Your task to perform on an android device: Show me productivity apps on the Play Store Image 0: 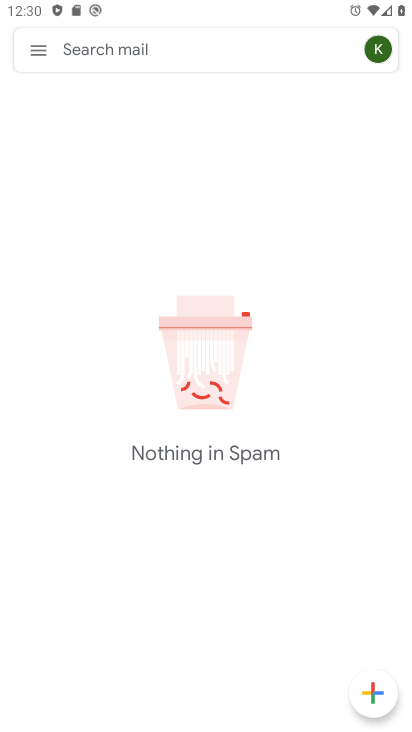
Step 0: press home button
Your task to perform on an android device: Show me productivity apps on the Play Store Image 1: 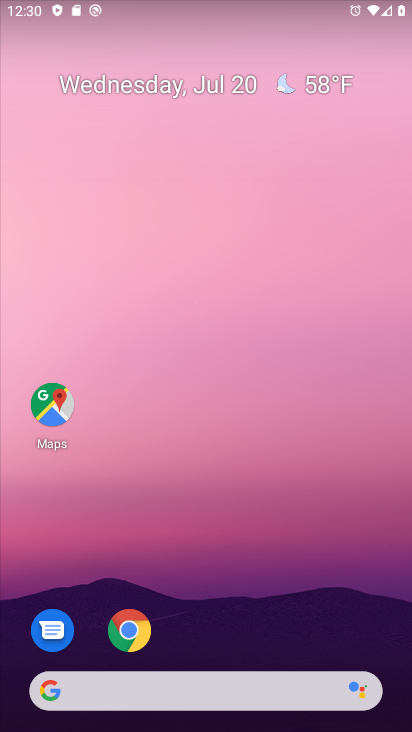
Step 1: drag from (176, 683) to (297, 25)
Your task to perform on an android device: Show me productivity apps on the Play Store Image 2: 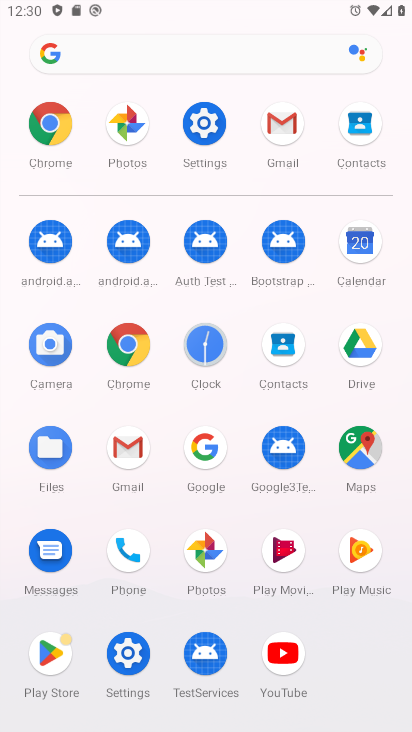
Step 2: click (53, 656)
Your task to perform on an android device: Show me productivity apps on the Play Store Image 3: 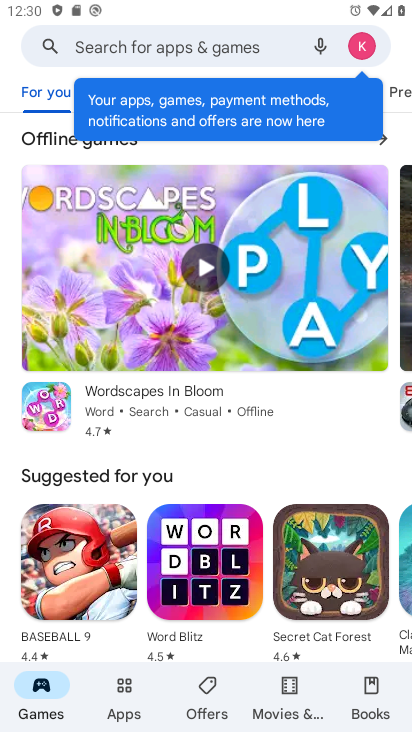
Step 3: click (124, 694)
Your task to perform on an android device: Show me productivity apps on the Play Store Image 4: 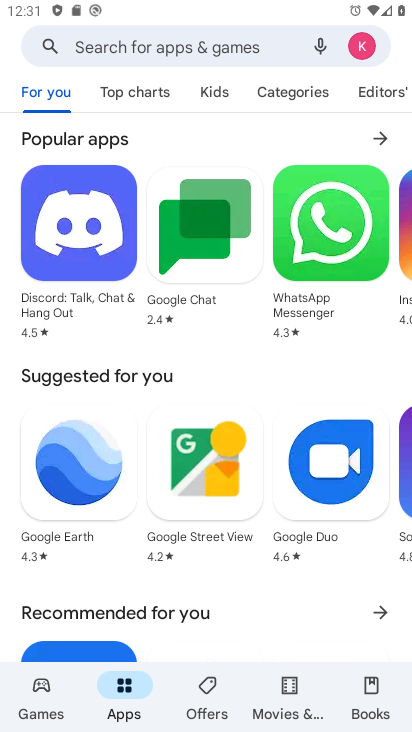
Step 4: click (283, 95)
Your task to perform on an android device: Show me productivity apps on the Play Store Image 5: 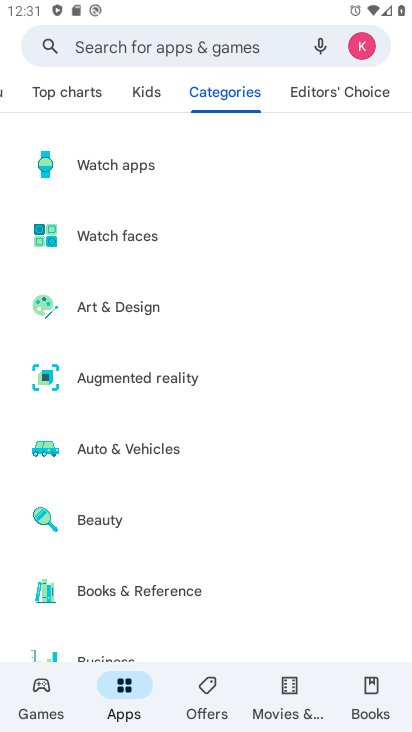
Step 5: drag from (196, 603) to (334, 80)
Your task to perform on an android device: Show me productivity apps on the Play Store Image 6: 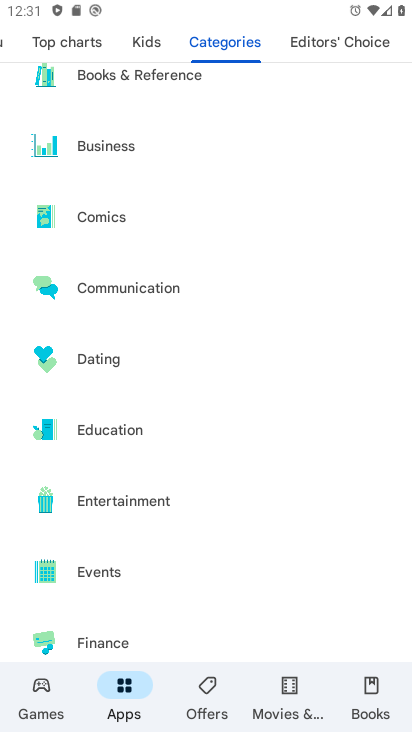
Step 6: drag from (198, 552) to (315, 72)
Your task to perform on an android device: Show me productivity apps on the Play Store Image 7: 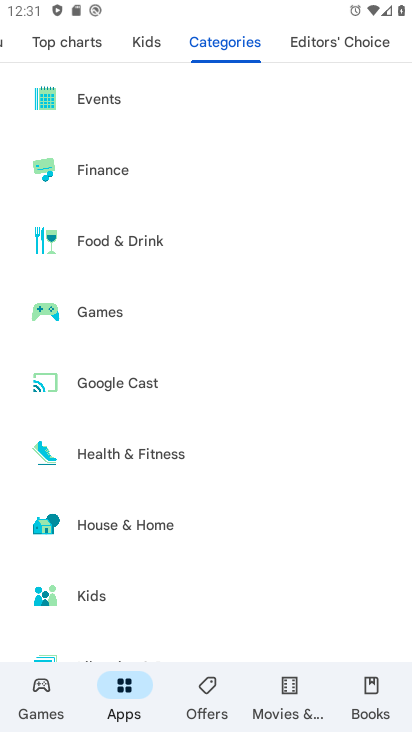
Step 7: drag from (223, 557) to (329, 128)
Your task to perform on an android device: Show me productivity apps on the Play Store Image 8: 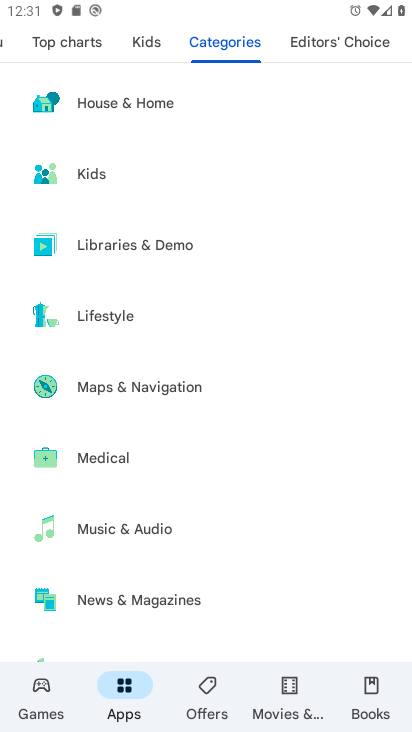
Step 8: drag from (246, 556) to (340, 106)
Your task to perform on an android device: Show me productivity apps on the Play Store Image 9: 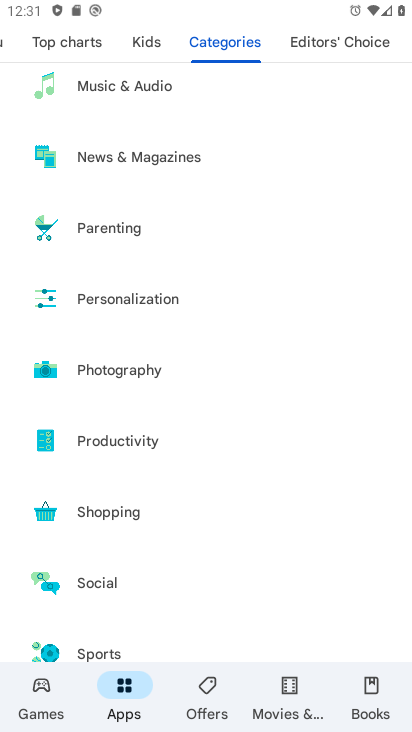
Step 9: click (143, 443)
Your task to perform on an android device: Show me productivity apps on the Play Store Image 10: 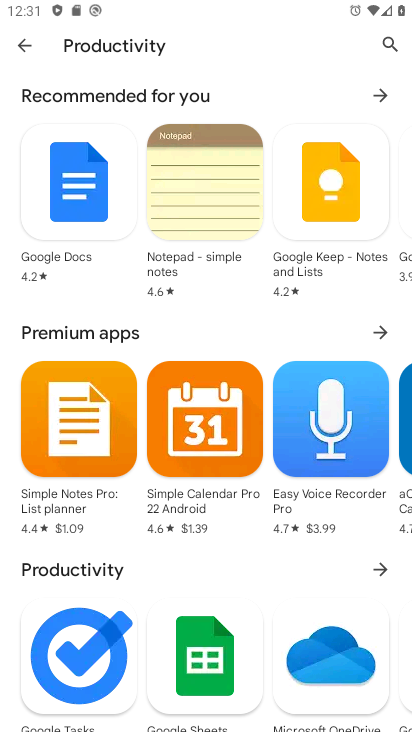
Step 10: task complete